Your task to perform on an android device: Do I have any events this weekend? Image 0: 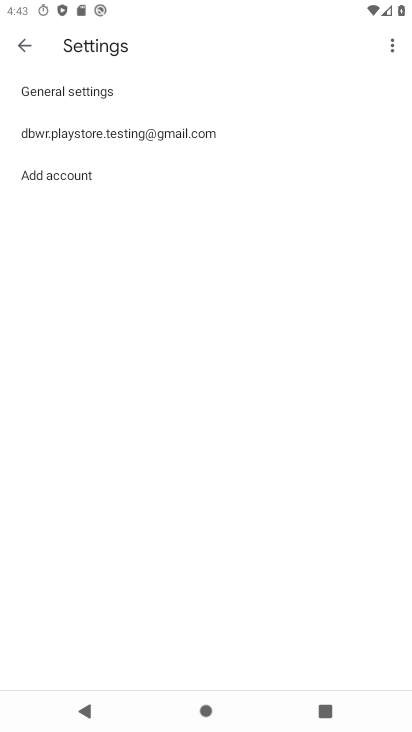
Step 0: press home button
Your task to perform on an android device: Do I have any events this weekend? Image 1: 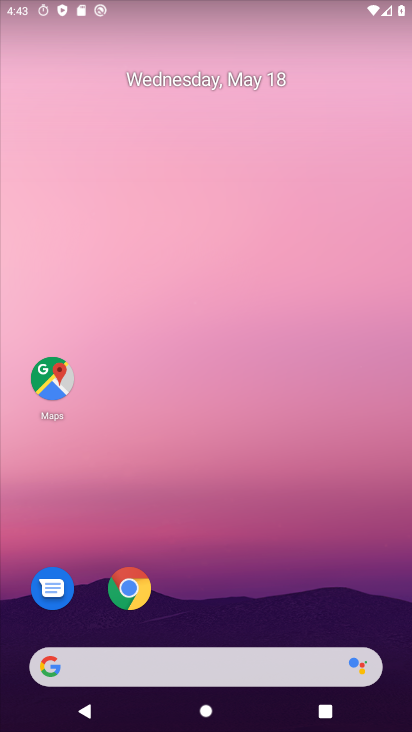
Step 1: drag from (222, 575) to (285, 154)
Your task to perform on an android device: Do I have any events this weekend? Image 2: 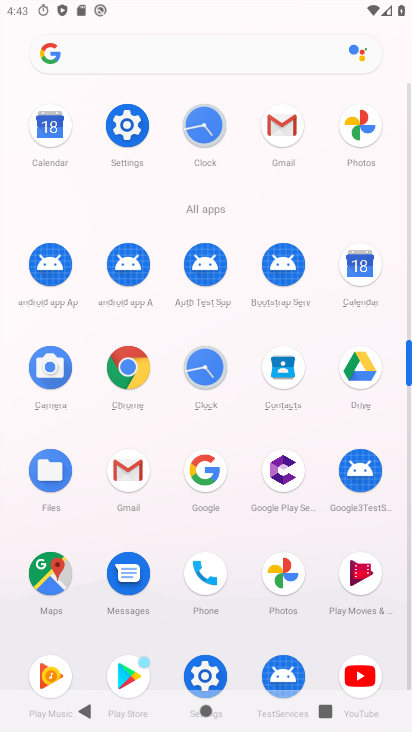
Step 2: click (365, 253)
Your task to perform on an android device: Do I have any events this weekend? Image 3: 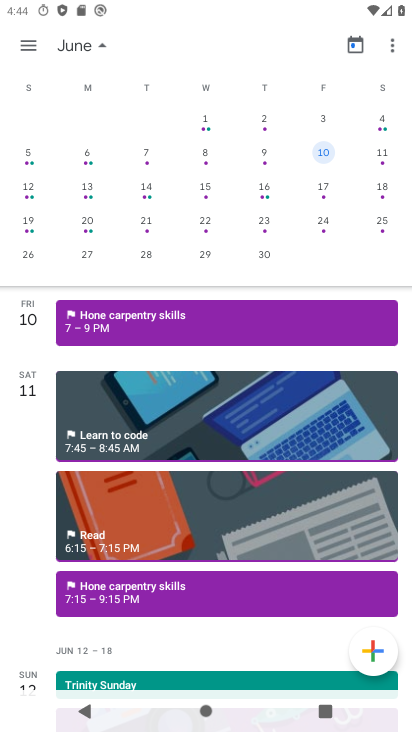
Step 3: drag from (29, 126) to (390, 133)
Your task to perform on an android device: Do I have any events this weekend? Image 4: 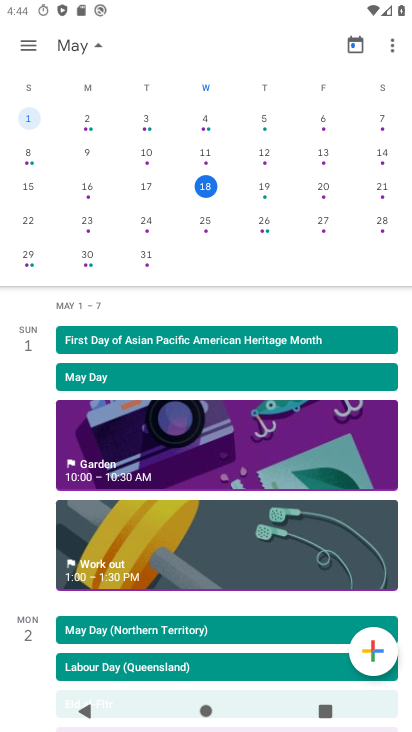
Step 4: click (31, 39)
Your task to perform on an android device: Do I have any events this weekend? Image 5: 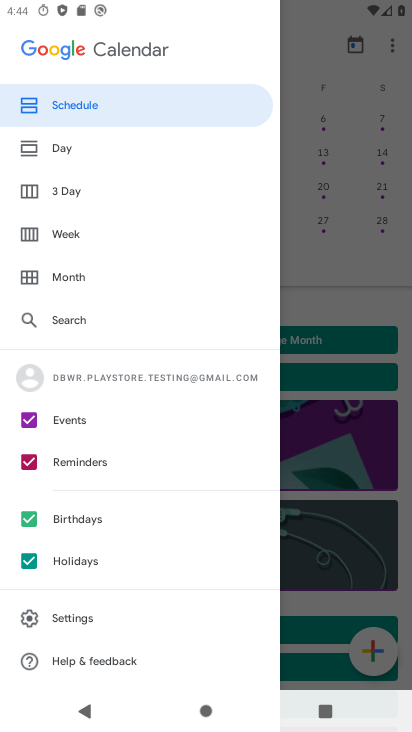
Step 5: click (94, 111)
Your task to perform on an android device: Do I have any events this weekend? Image 6: 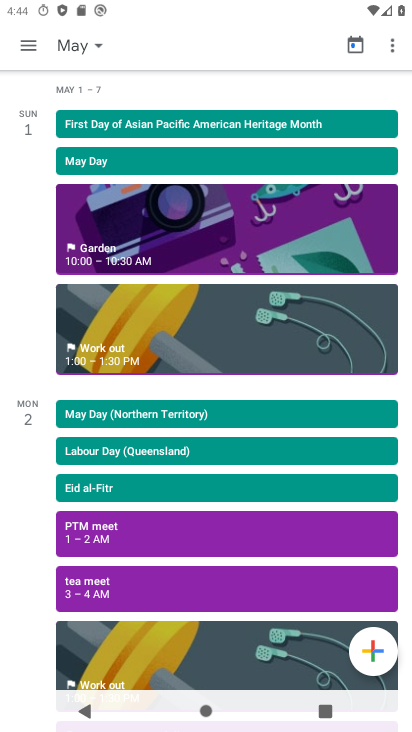
Step 6: click (60, 46)
Your task to perform on an android device: Do I have any events this weekend? Image 7: 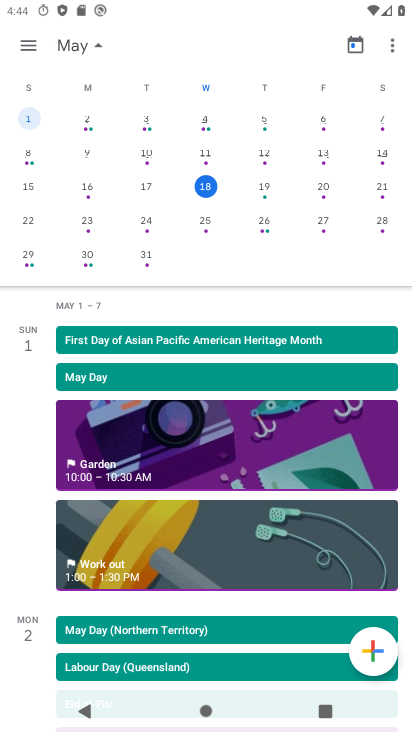
Step 7: click (75, 42)
Your task to perform on an android device: Do I have any events this weekend? Image 8: 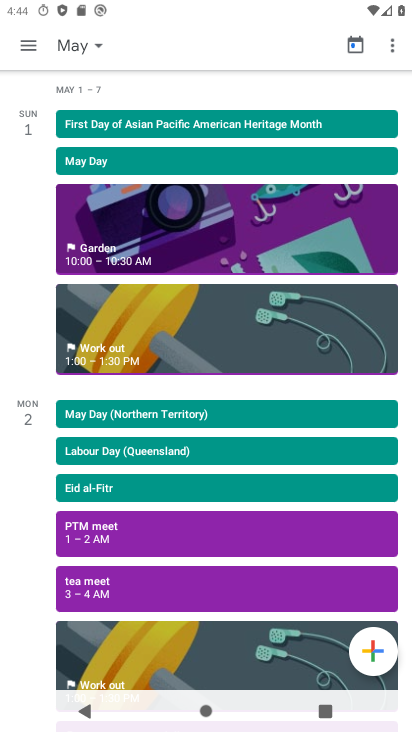
Step 8: click (96, 44)
Your task to perform on an android device: Do I have any events this weekend? Image 9: 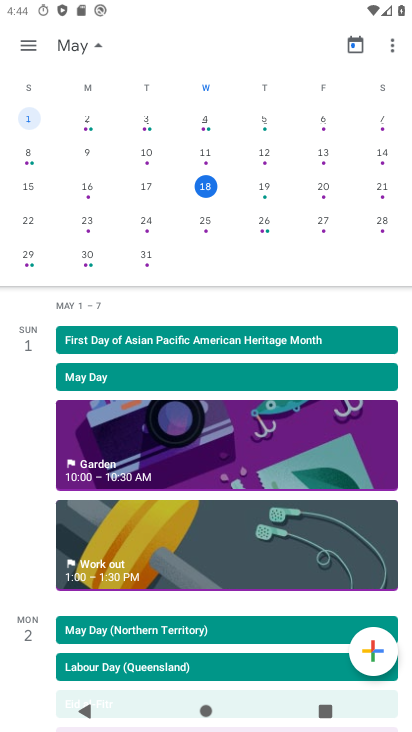
Step 9: click (98, 43)
Your task to perform on an android device: Do I have any events this weekend? Image 10: 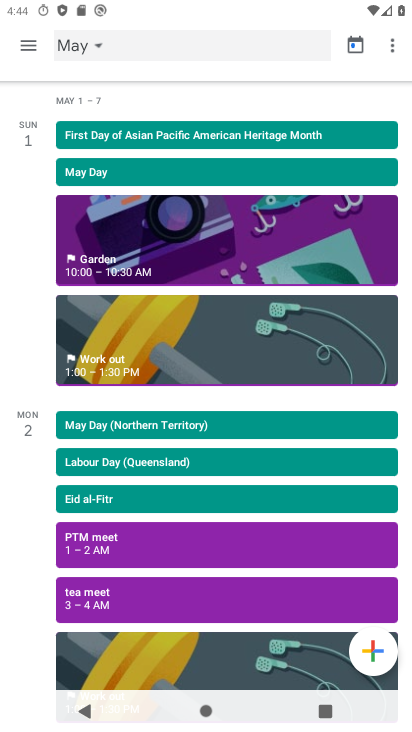
Step 10: click (201, 179)
Your task to perform on an android device: Do I have any events this weekend? Image 11: 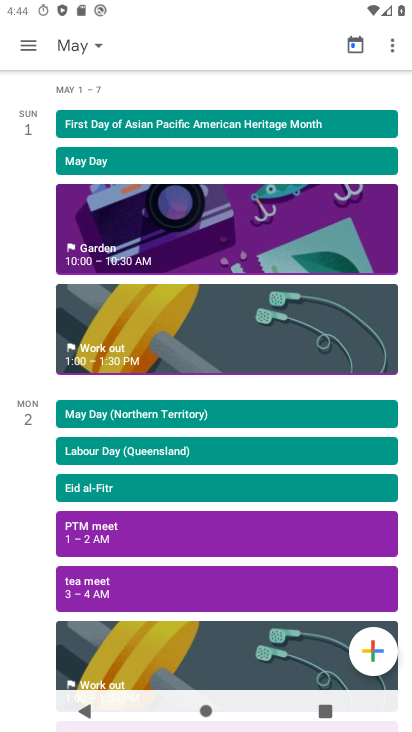
Step 11: click (91, 41)
Your task to perform on an android device: Do I have any events this weekend? Image 12: 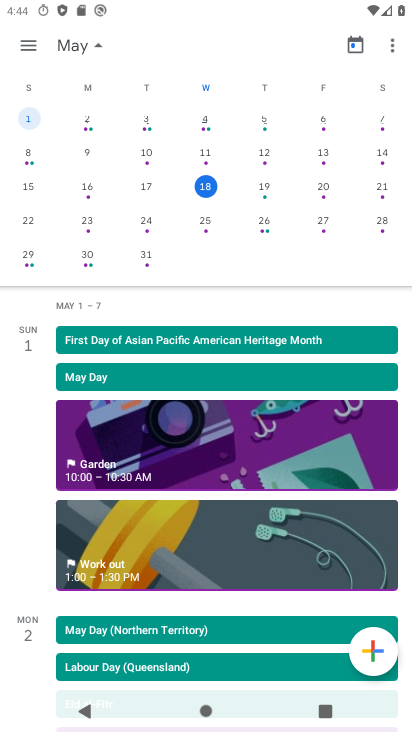
Step 12: click (211, 183)
Your task to perform on an android device: Do I have any events this weekend? Image 13: 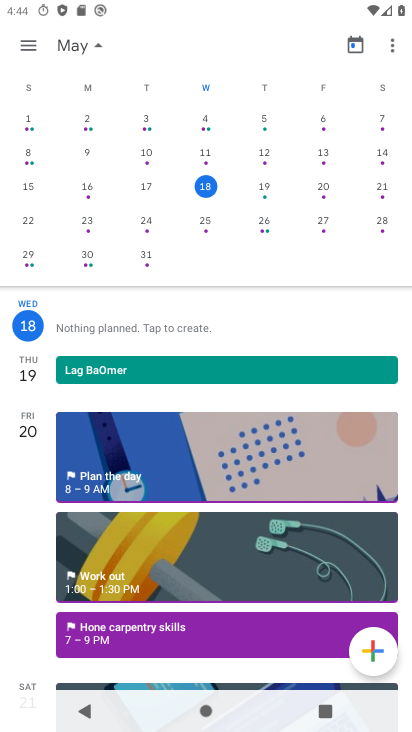
Step 13: task complete